Your task to perform on an android device: Open Google Image 0: 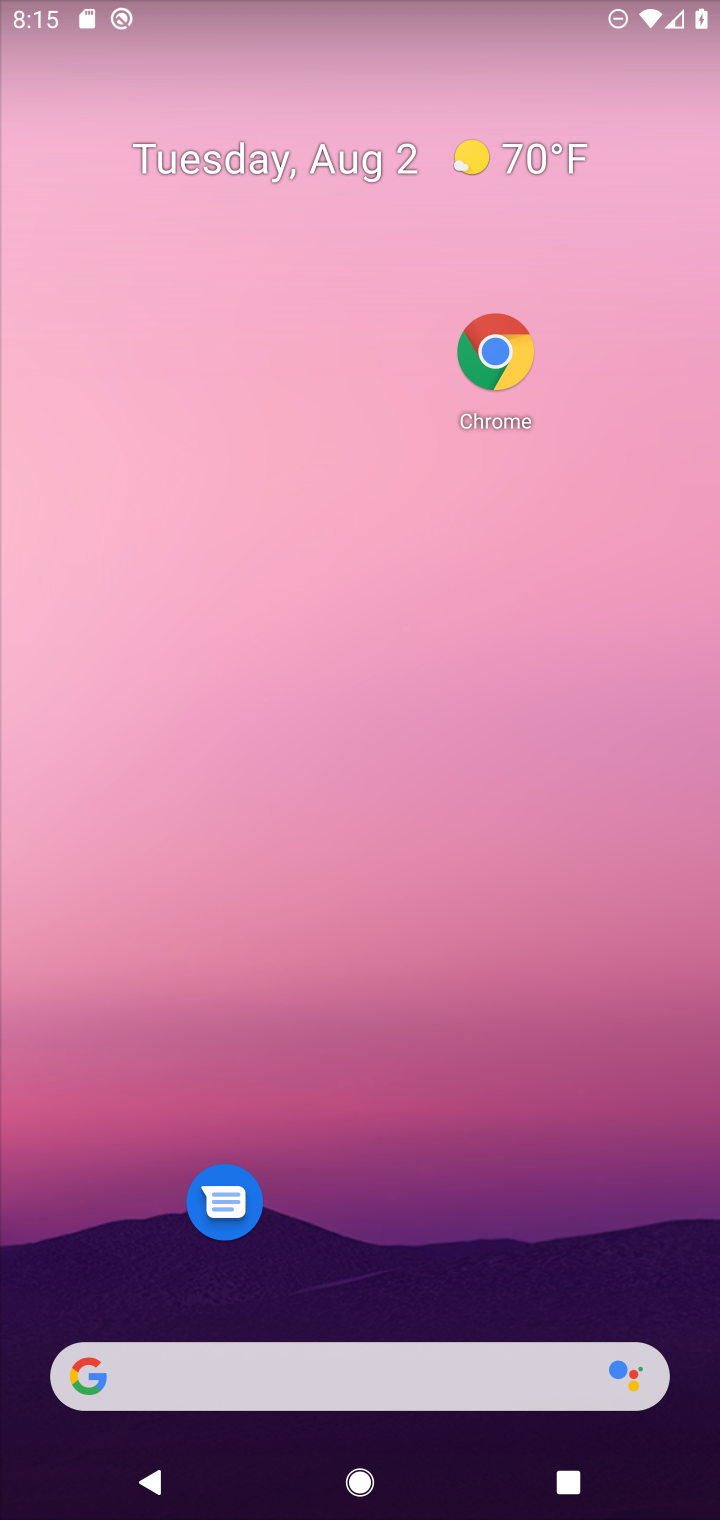
Step 0: drag from (403, 1059) to (313, 85)
Your task to perform on an android device: Open Google Image 1: 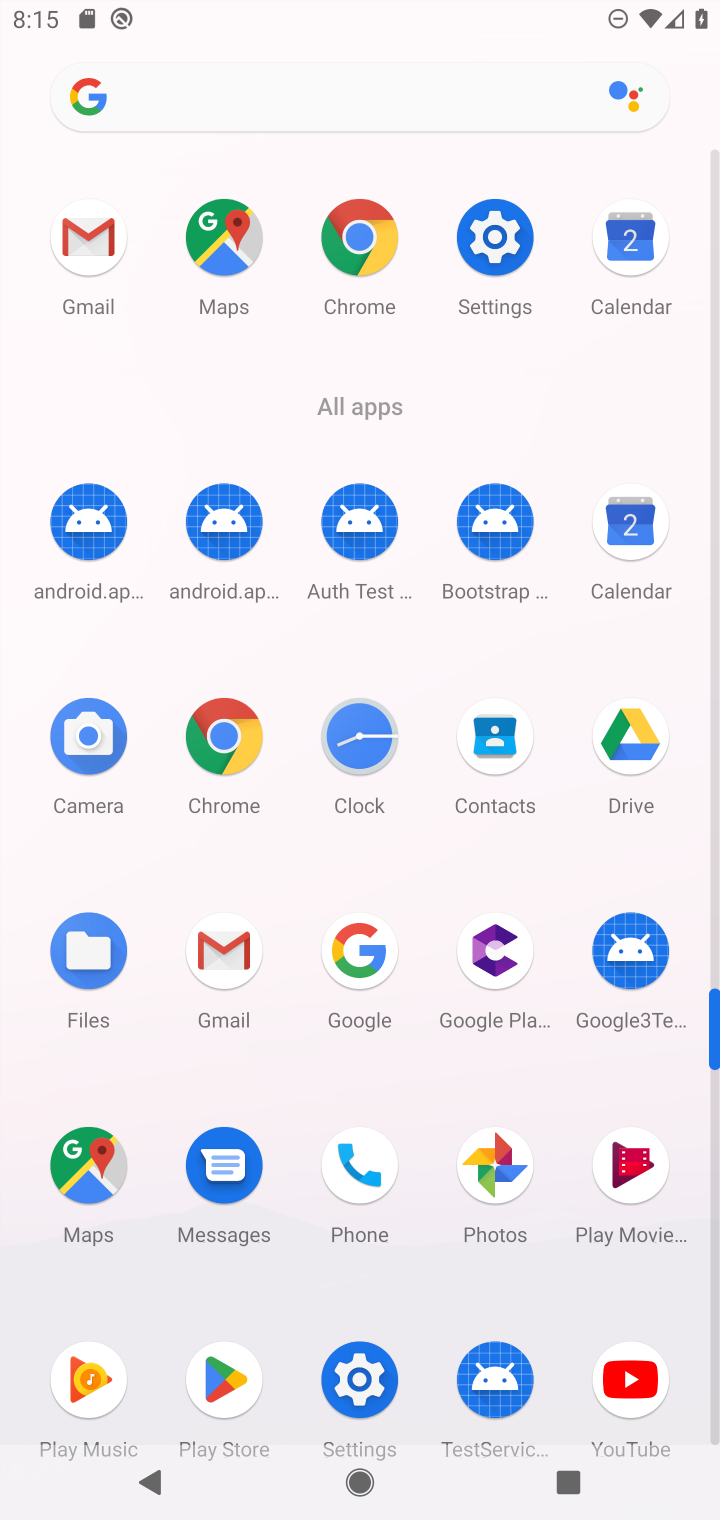
Step 1: click (360, 954)
Your task to perform on an android device: Open Google Image 2: 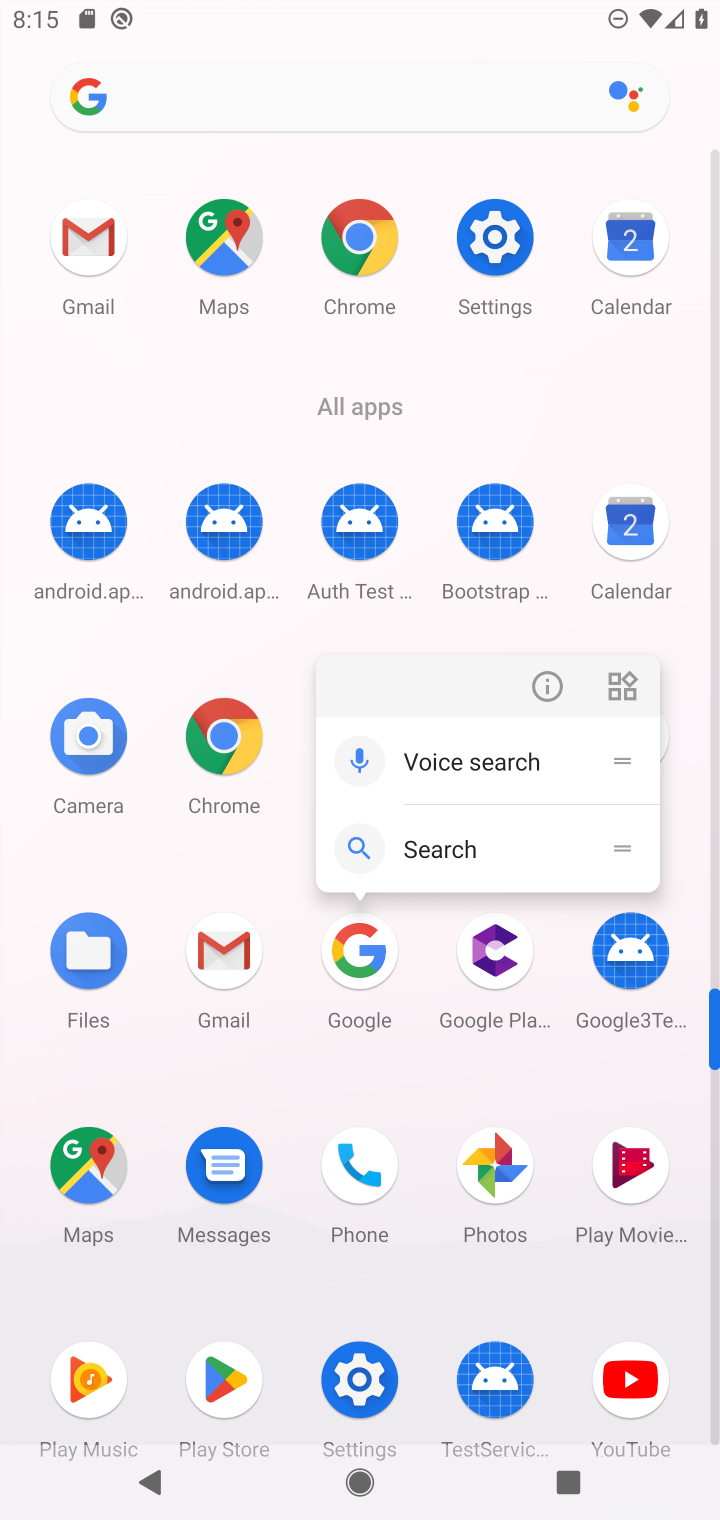
Step 2: click (362, 958)
Your task to perform on an android device: Open Google Image 3: 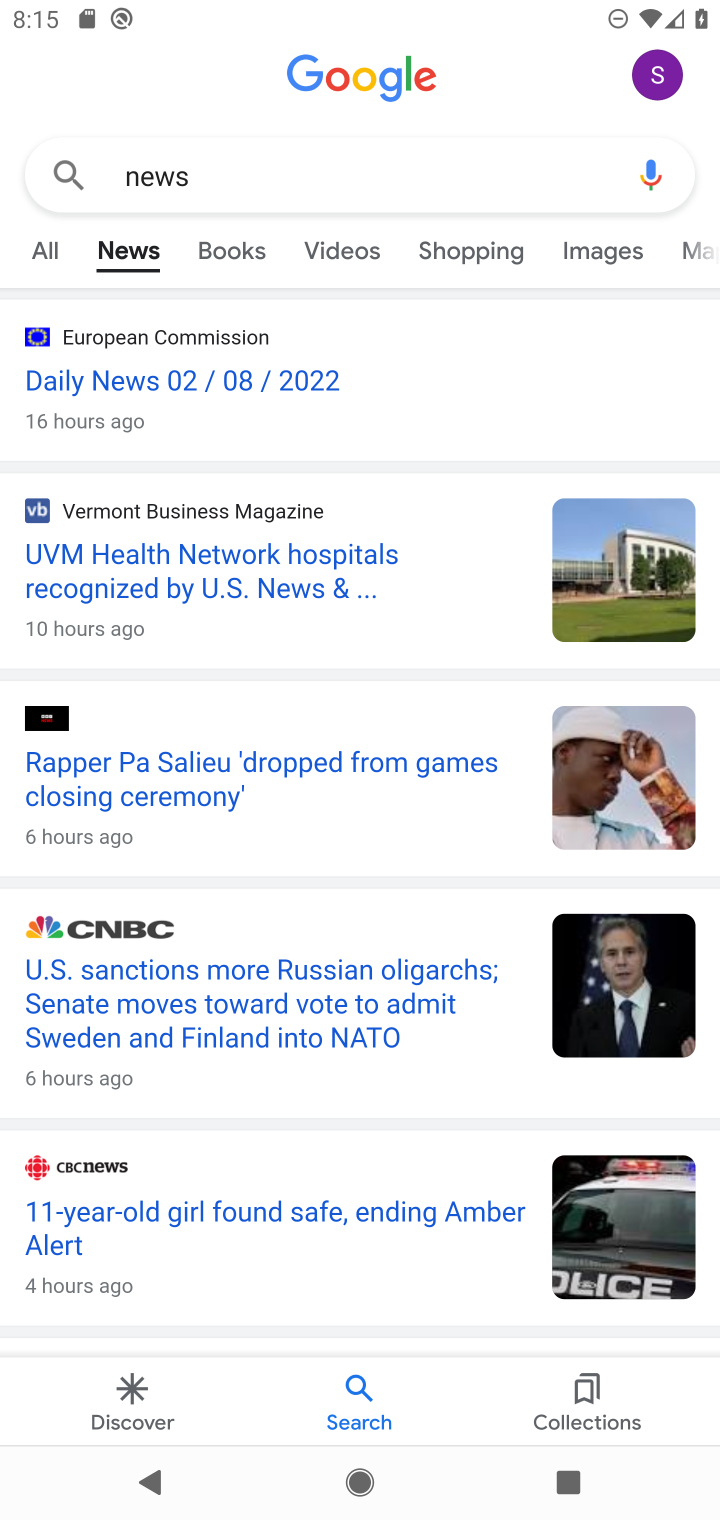
Step 3: task complete